Your task to perform on an android device: turn on notifications settings in the gmail app Image 0: 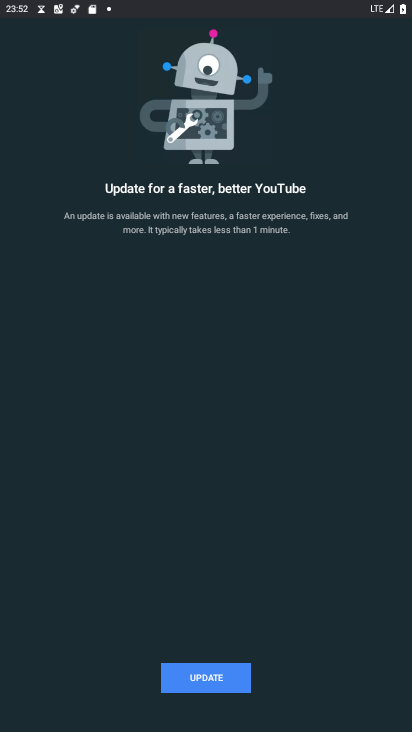
Step 0: press home button
Your task to perform on an android device: turn on notifications settings in the gmail app Image 1: 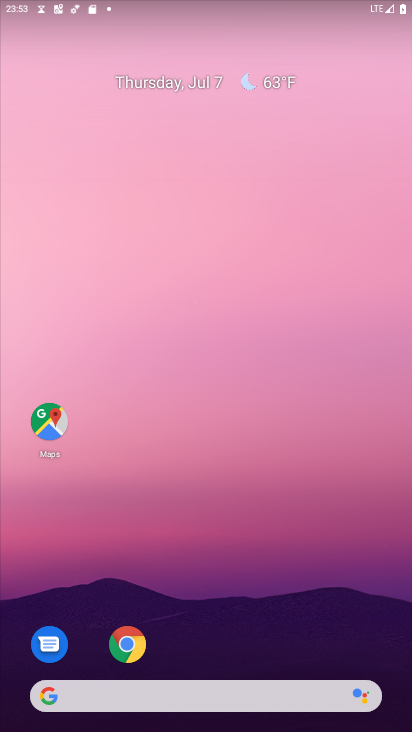
Step 1: drag from (240, 729) to (218, 86)
Your task to perform on an android device: turn on notifications settings in the gmail app Image 2: 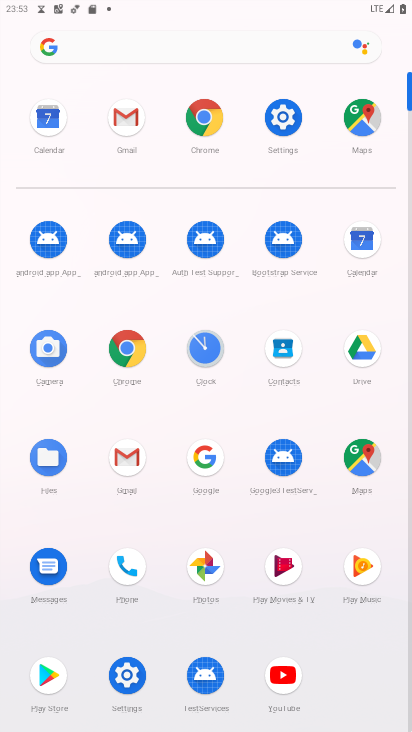
Step 2: click (122, 450)
Your task to perform on an android device: turn on notifications settings in the gmail app Image 3: 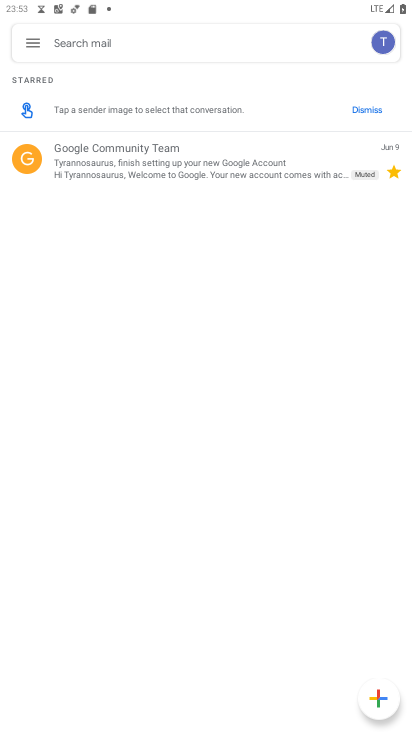
Step 3: click (27, 42)
Your task to perform on an android device: turn on notifications settings in the gmail app Image 4: 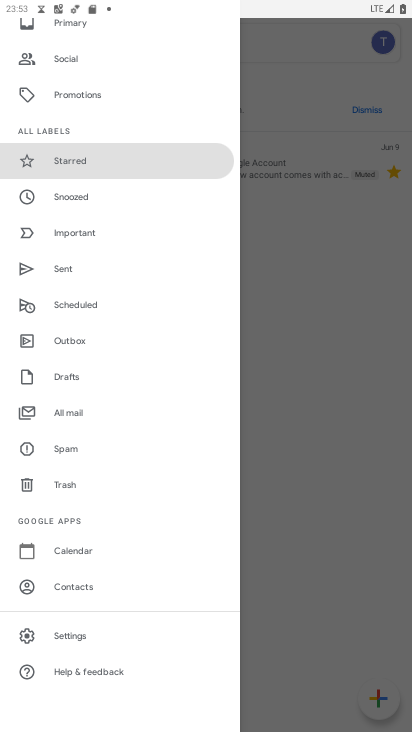
Step 4: click (73, 631)
Your task to perform on an android device: turn on notifications settings in the gmail app Image 5: 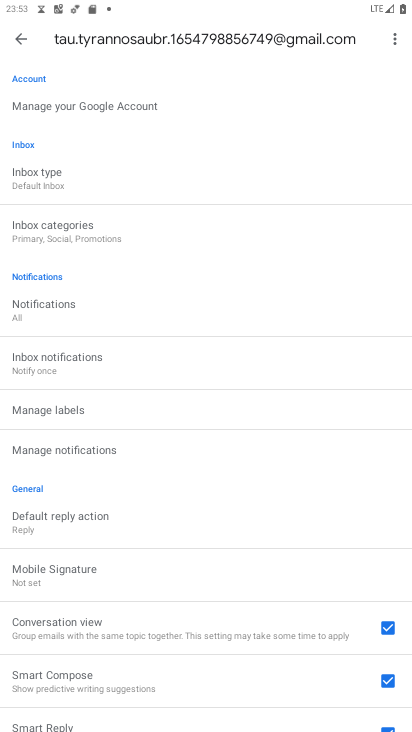
Step 5: task complete